Your task to perform on an android device: find photos in the google photos app Image 0: 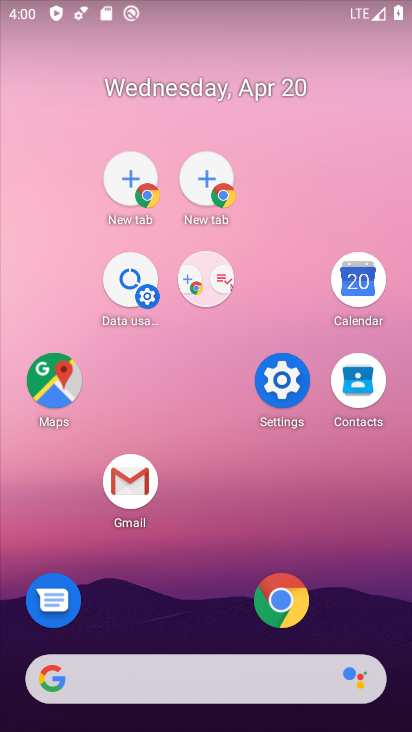
Step 0: drag from (134, 461) to (88, 239)
Your task to perform on an android device: find photos in the google photos app Image 1: 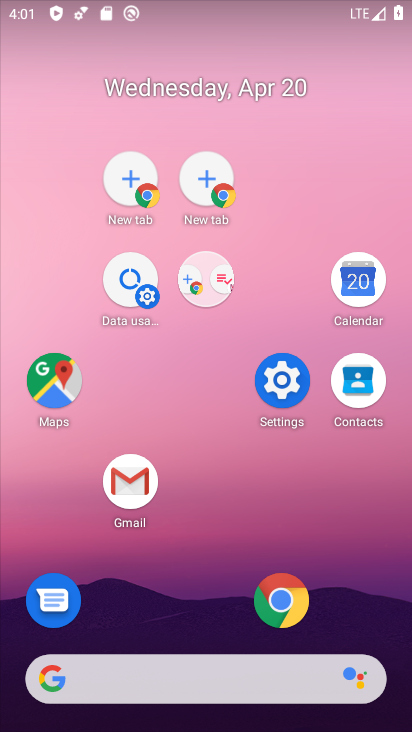
Step 1: drag from (284, 634) to (106, 289)
Your task to perform on an android device: find photos in the google photos app Image 2: 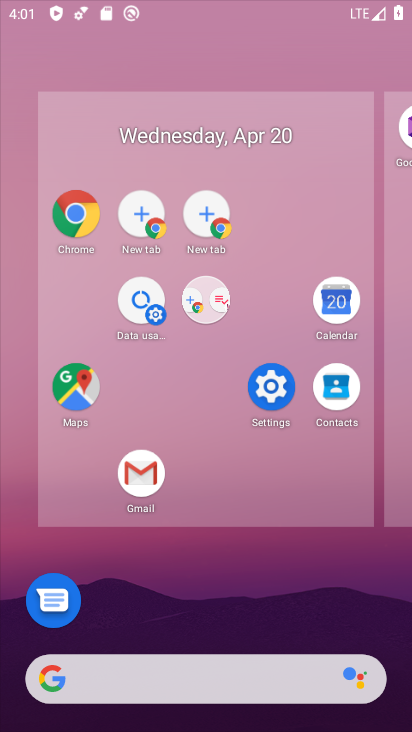
Step 2: drag from (158, 520) to (147, 303)
Your task to perform on an android device: find photos in the google photos app Image 3: 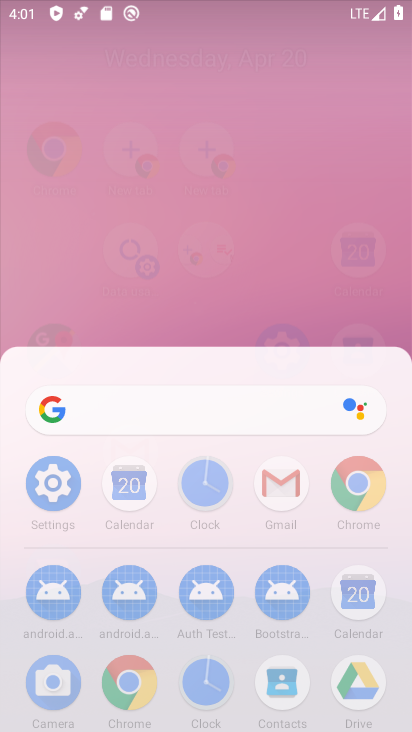
Step 3: drag from (119, 339) to (151, 307)
Your task to perform on an android device: find photos in the google photos app Image 4: 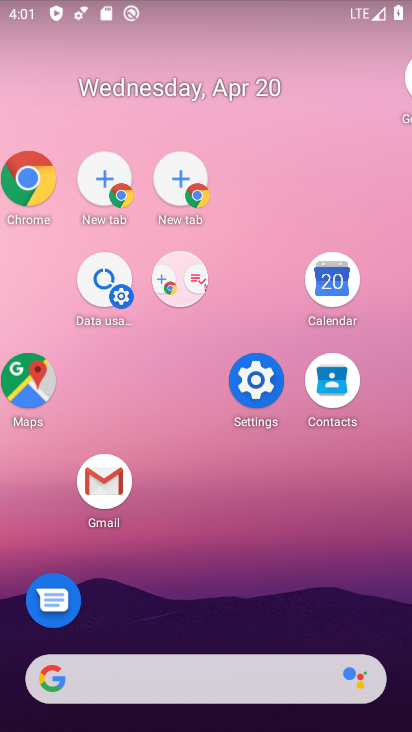
Step 4: drag from (164, 707) to (31, 340)
Your task to perform on an android device: find photos in the google photos app Image 5: 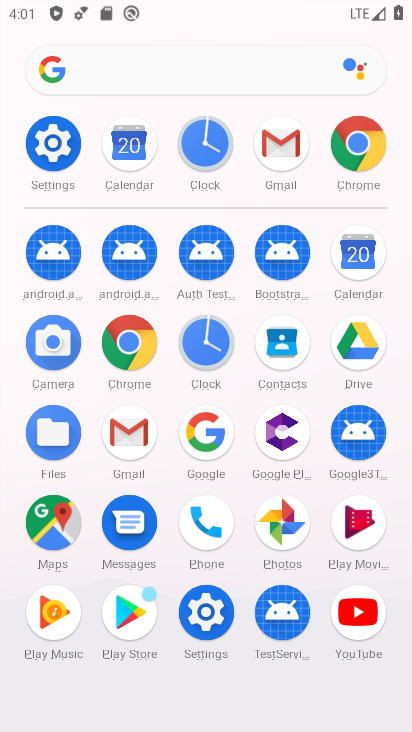
Step 5: click (286, 535)
Your task to perform on an android device: find photos in the google photos app Image 6: 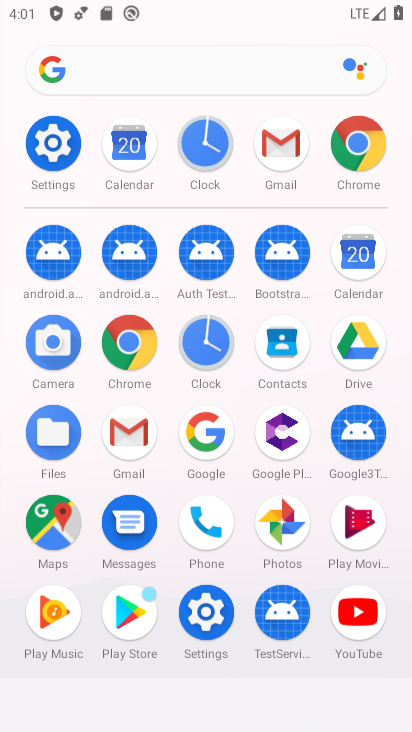
Step 6: click (276, 522)
Your task to perform on an android device: find photos in the google photos app Image 7: 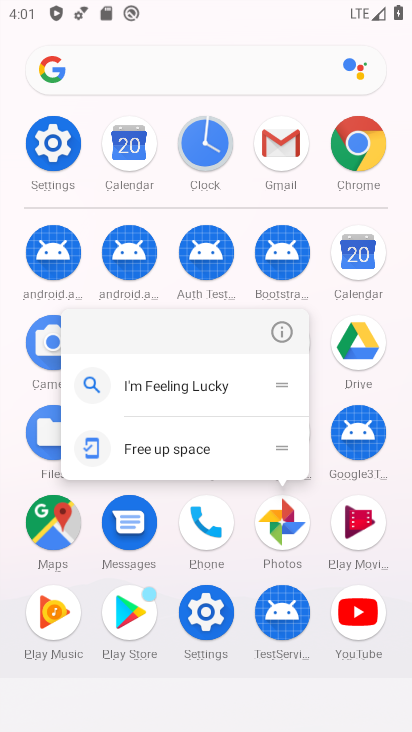
Step 7: click (267, 526)
Your task to perform on an android device: find photos in the google photos app Image 8: 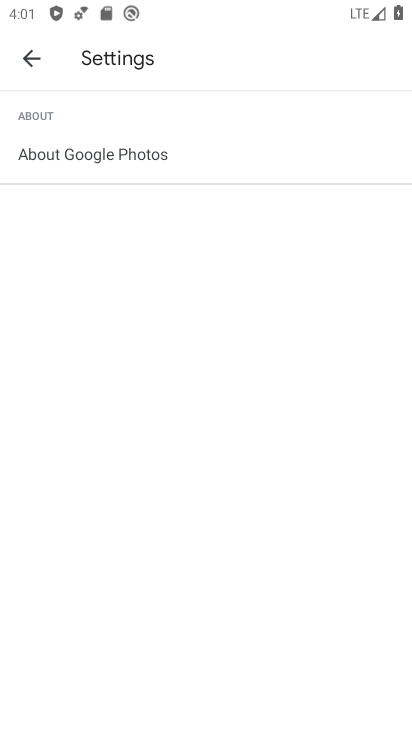
Step 8: click (22, 51)
Your task to perform on an android device: find photos in the google photos app Image 9: 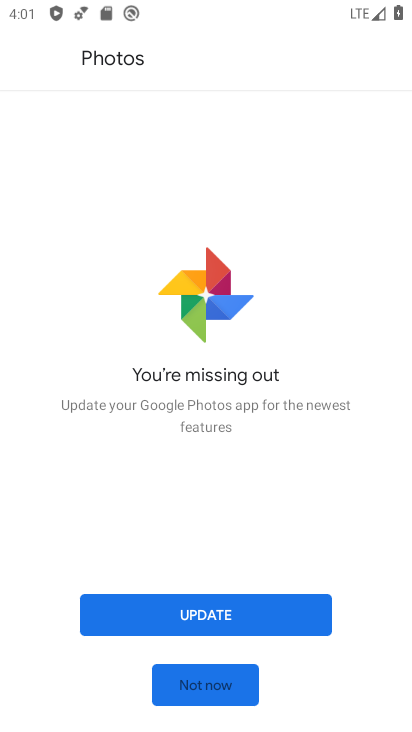
Step 9: click (95, 233)
Your task to perform on an android device: find photos in the google photos app Image 10: 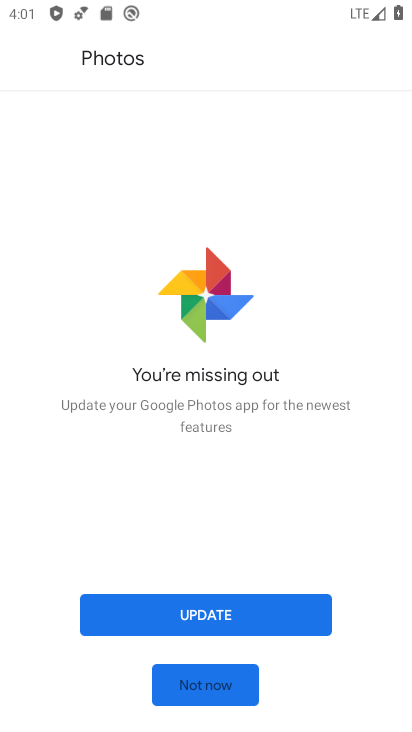
Step 10: click (191, 699)
Your task to perform on an android device: find photos in the google photos app Image 11: 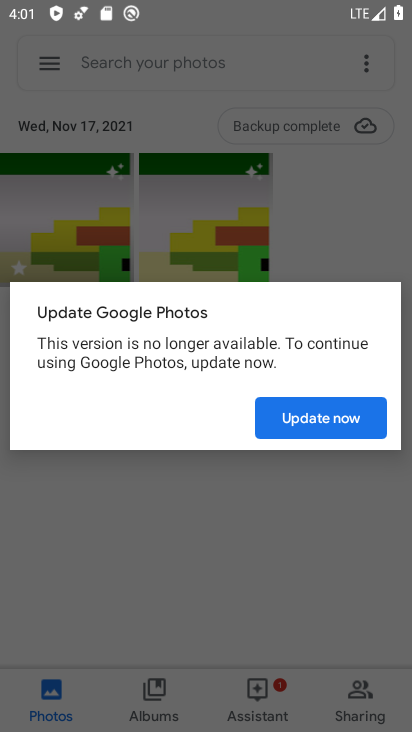
Step 11: task complete